Your task to perform on an android device: turn on the 24-hour format for clock Image 0: 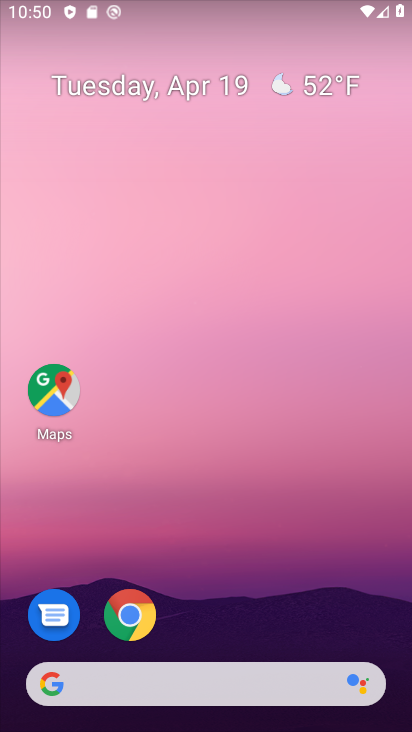
Step 0: drag from (190, 659) to (379, 6)
Your task to perform on an android device: turn on the 24-hour format for clock Image 1: 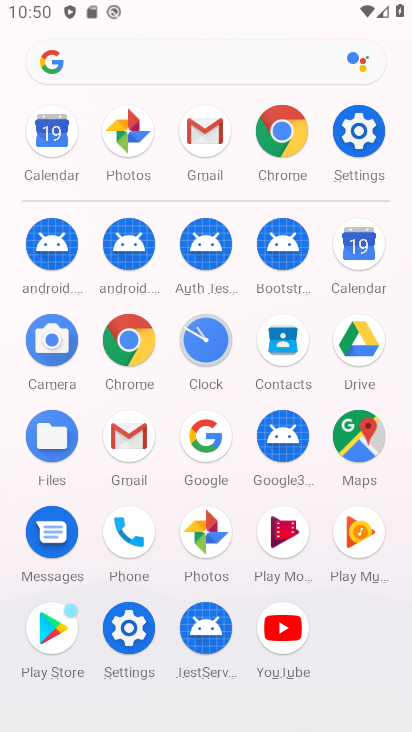
Step 1: click (215, 338)
Your task to perform on an android device: turn on the 24-hour format for clock Image 2: 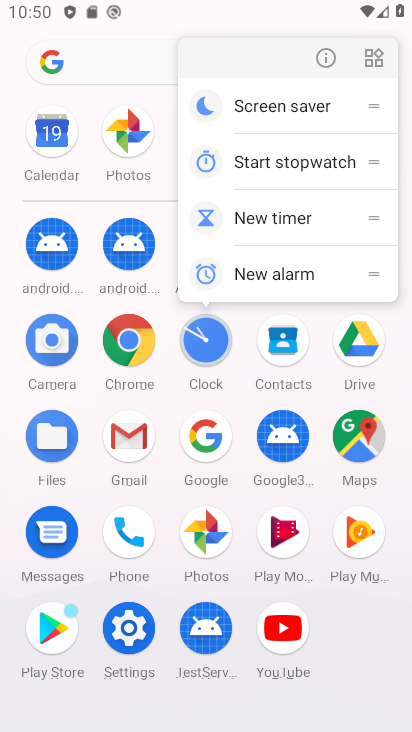
Step 2: click (215, 338)
Your task to perform on an android device: turn on the 24-hour format for clock Image 3: 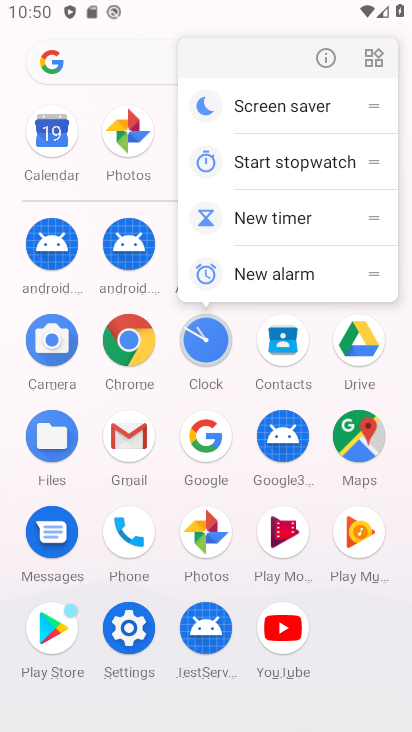
Step 3: click (215, 338)
Your task to perform on an android device: turn on the 24-hour format for clock Image 4: 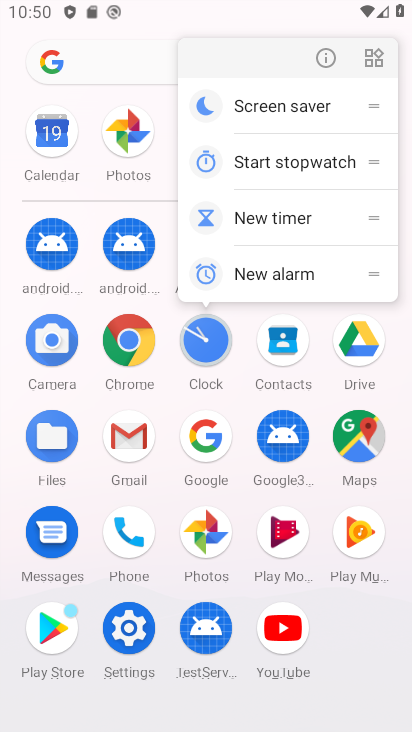
Step 4: click (215, 338)
Your task to perform on an android device: turn on the 24-hour format for clock Image 5: 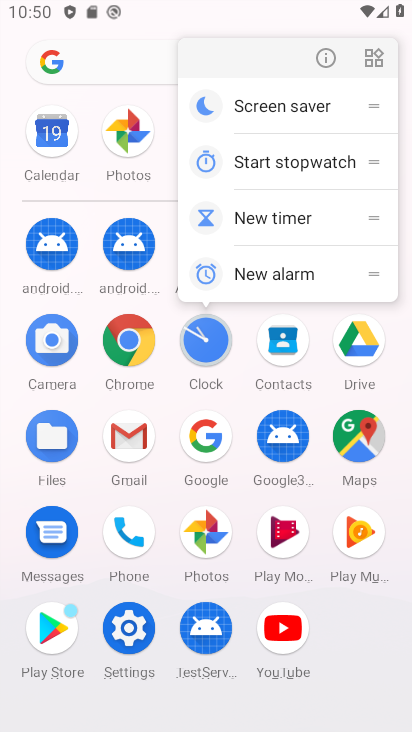
Step 5: click (215, 338)
Your task to perform on an android device: turn on the 24-hour format for clock Image 6: 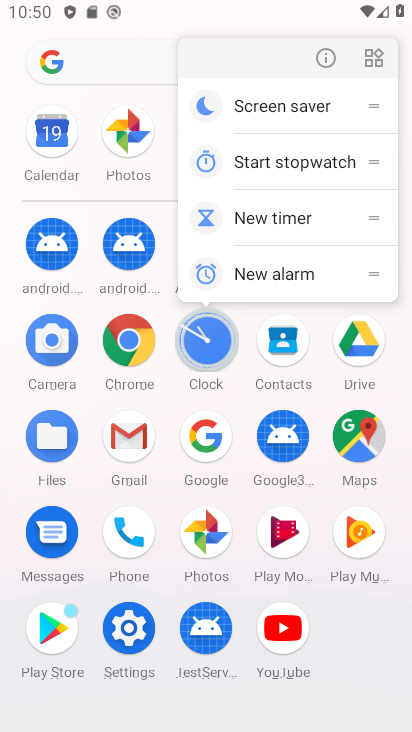
Step 6: click (215, 338)
Your task to perform on an android device: turn on the 24-hour format for clock Image 7: 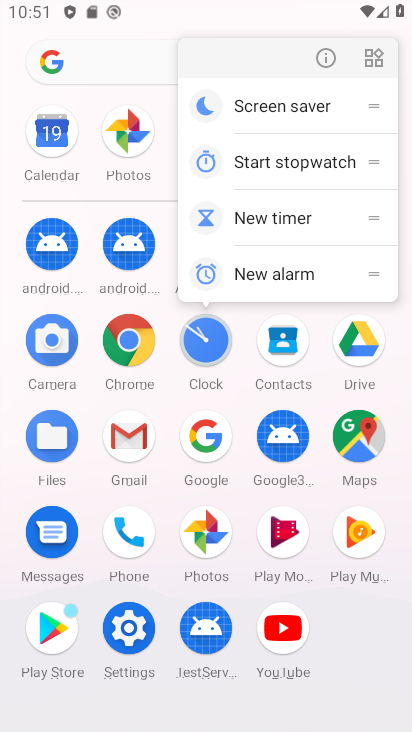
Step 7: click (215, 338)
Your task to perform on an android device: turn on the 24-hour format for clock Image 8: 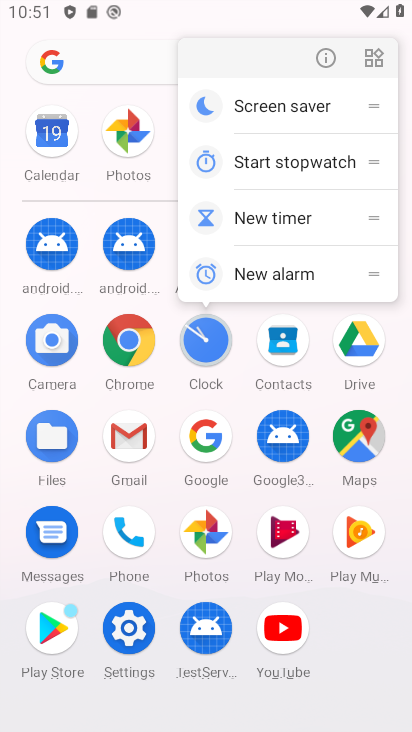
Step 8: click (215, 338)
Your task to perform on an android device: turn on the 24-hour format for clock Image 9: 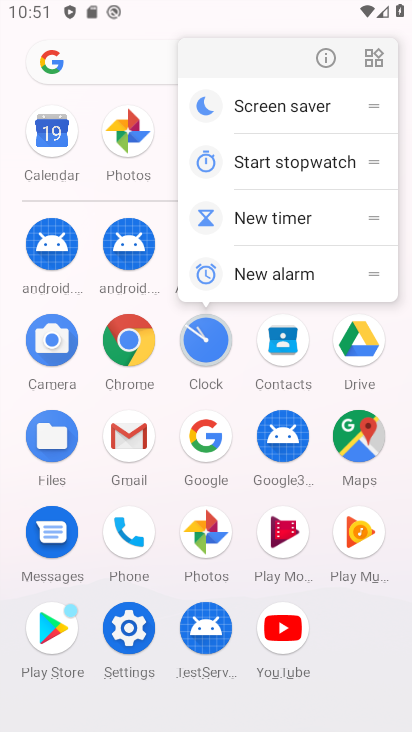
Step 9: click (215, 338)
Your task to perform on an android device: turn on the 24-hour format for clock Image 10: 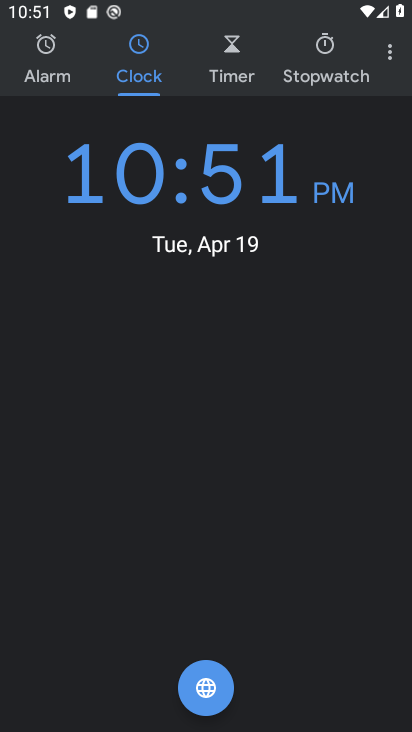
Step 10: click (396, 47)
Your task to perform on an android device: turn on the 24-hour format for clock Image 11: 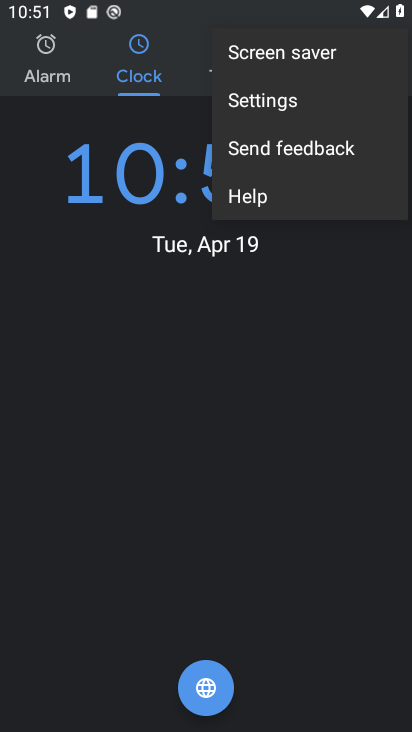
Step 11: click (261, 107)
Your task to perform on an android device: turn on the 24-hour format for clock Image 12: 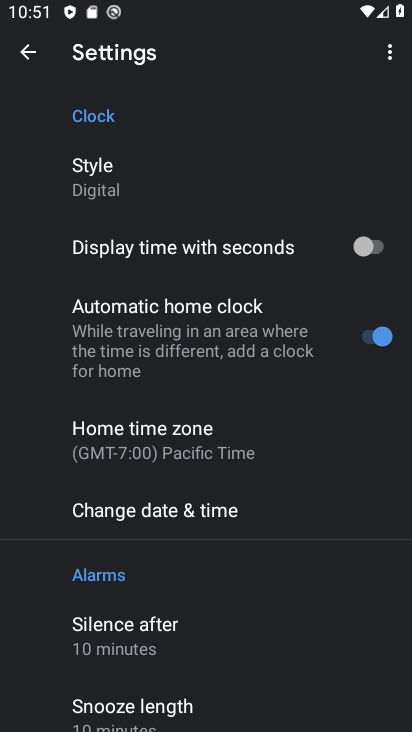
Step 12: drag from (198, 585) to (177, 373)
Your task to perform on an android device: turn on the 24-hour format for clock Image 13: 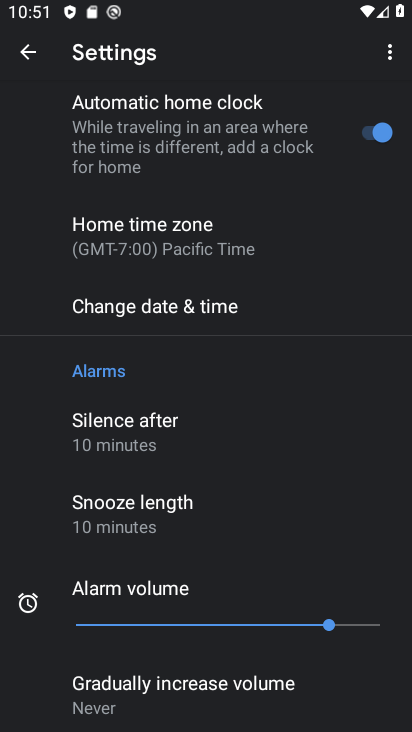
Step 13: drag from (175, 672) to (200, 345)
Your task to perform on an android device: turn on the 24-hour format for clock Image 14: 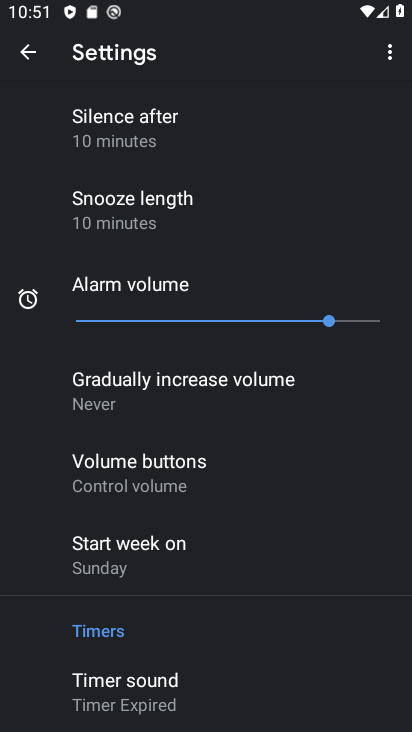
Step 14: drag from (163, 638) to (230, 290)
Your task to perform on an android device: turn on the 24-hour format for clock Image 15: 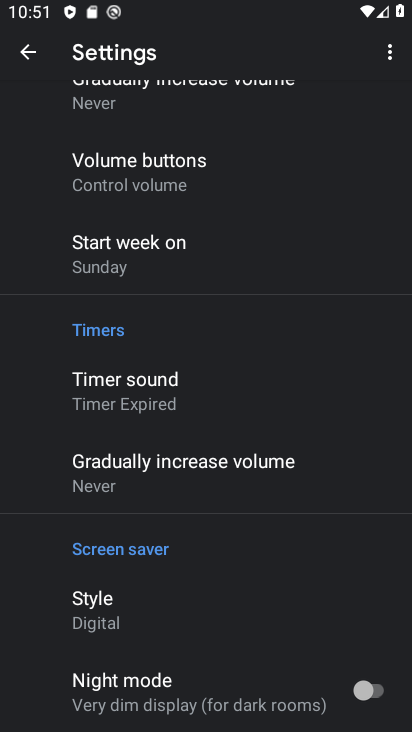
Step 15: drag from (224, 626) to (245, 707)
Your task to perform on an android device: turn on the 24-hour format for clock Image 16: 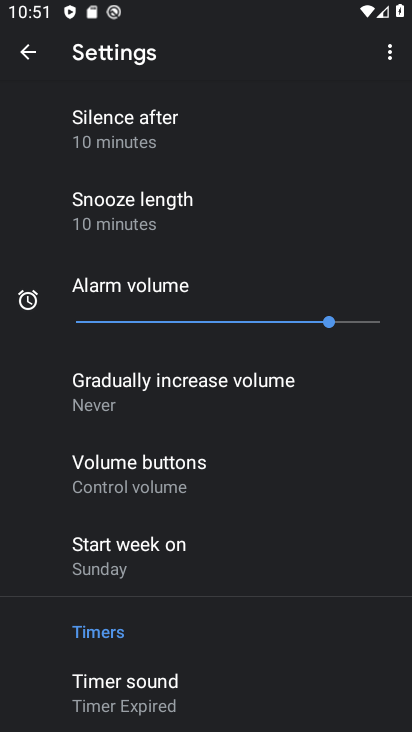
Step 16: drag from (251, 190) to (216, 496)
Your task to perform on an android device: turn on the 24-hour format for clock Image 17: 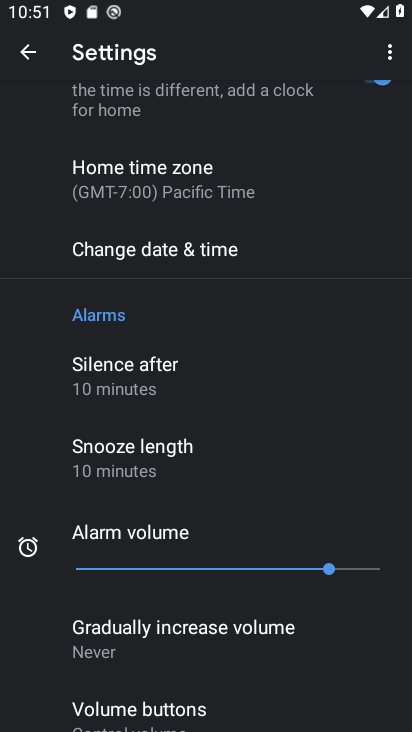
Step 17: click (172, 255)
Your task to perform on an android device: turn on the 24-hour format for clock Image 18: 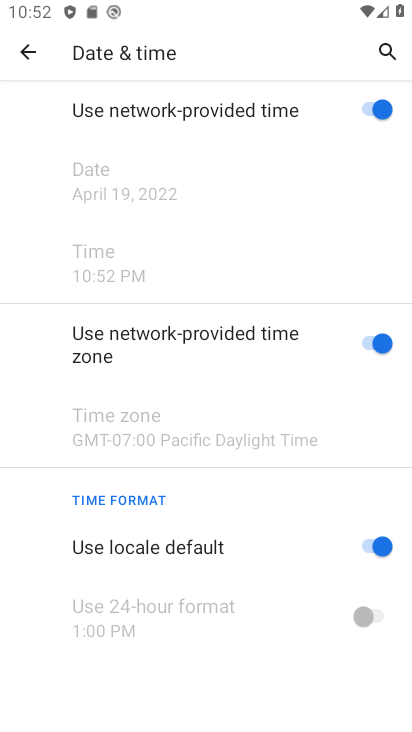
Step 18: click (371, 546)
Your task to perform on an android device: turn on the 24-hour format for clock Image 19: 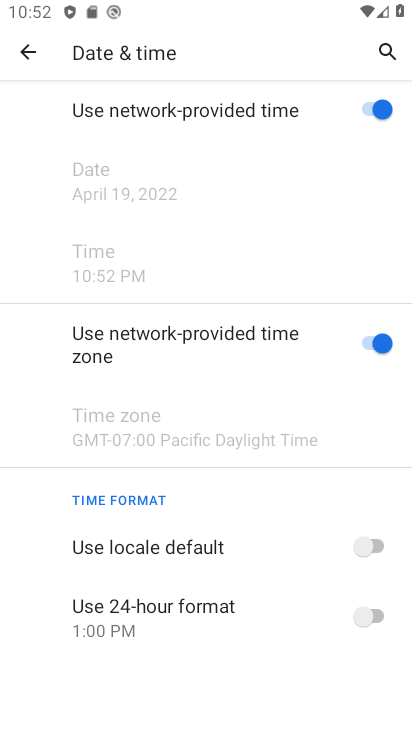
Step 19: click (380, 616)
Your task to perform on an android device: turn on the 24-hour format for clock Image 20: 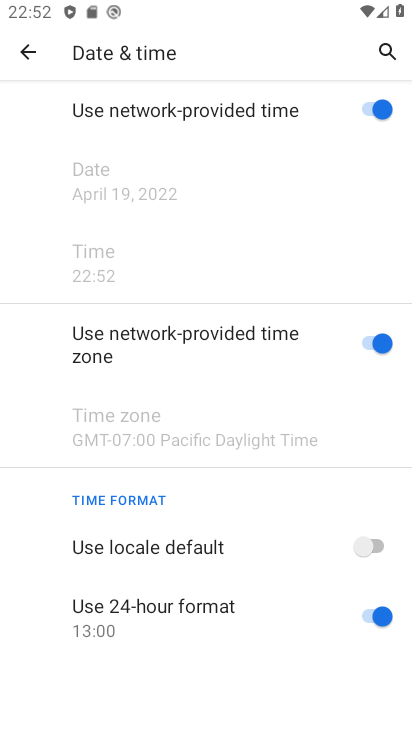
Step 20: task complete